Your task to perform on an android device: Go to Google Image 0: 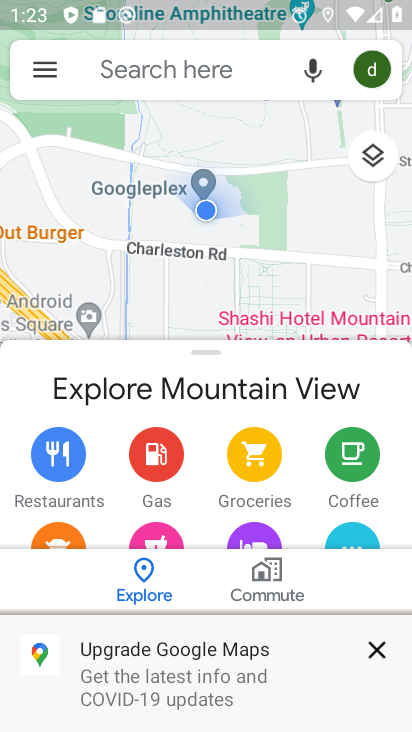
Step 0: press home button
Your task to perform on an android device: Go to Google Image 1: 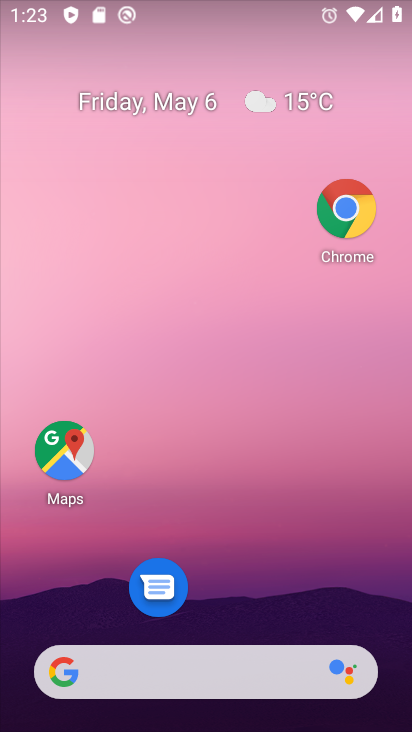
Step 1: drag from (282, 578) to (242, 104)
Your task to perform on an android device: Go to Google Image 2: 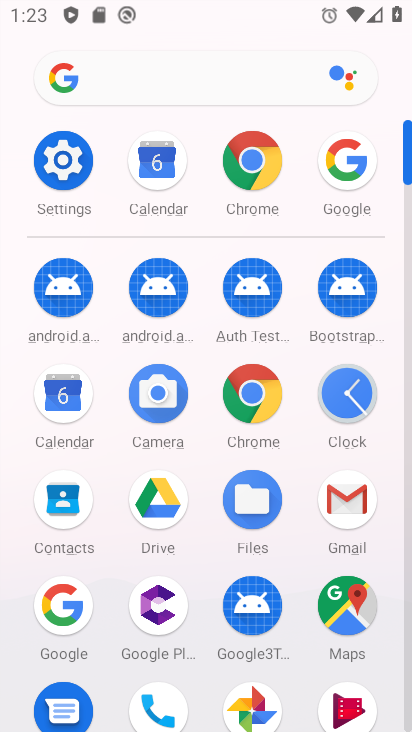
Step 2: click (340, 203)
Your task to perform on an android device: Go to Google Image 3: 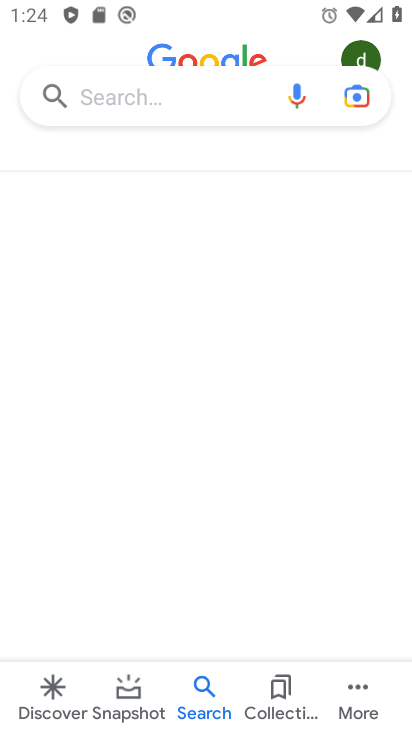
Step 3: task complete